Your task to perform on an android device: toggle priority inbox in the gmail app Image 0: 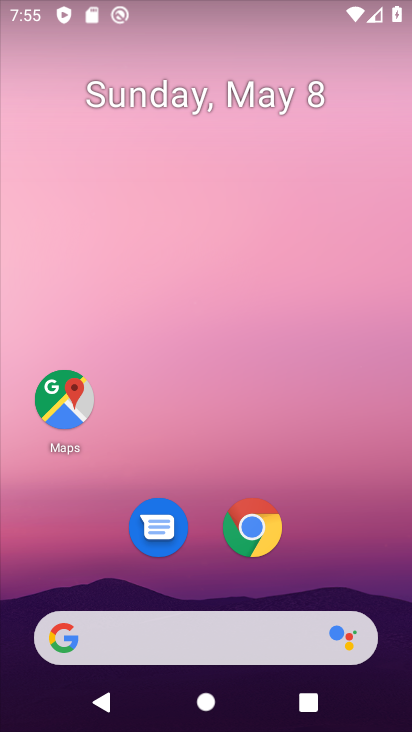
Step 0: drag from (379, 563) to (264, 2)
Your task to perform on an android device: toggle priority inbox in the gmail app Image 1: 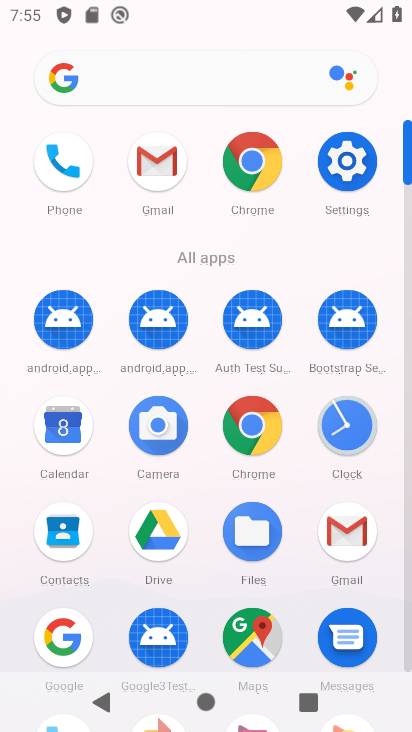
Step 1: drag from (10, 619) to (28, 195)
Your task to perform on an android device: toggle priority inbox in the gmail app Image 2: 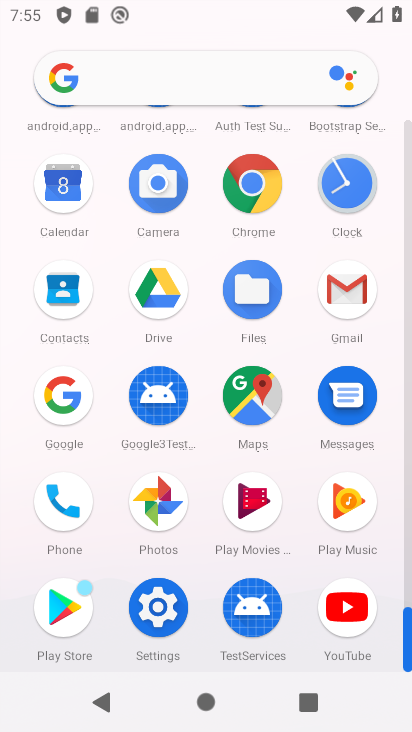
Step 2: click (347, 277)
Your task to perform on an android device: toggle priority inbox in the gmail app Image 3: 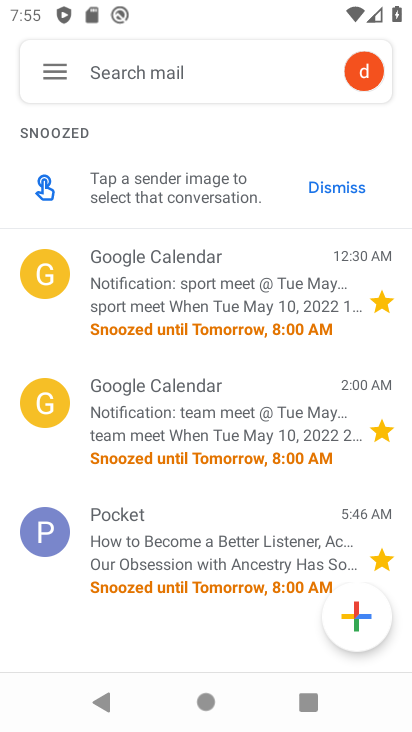
Step 3: click (54, 74)
Your task to perform on an android device: toggle priority inbox in the gmail app Image 4: 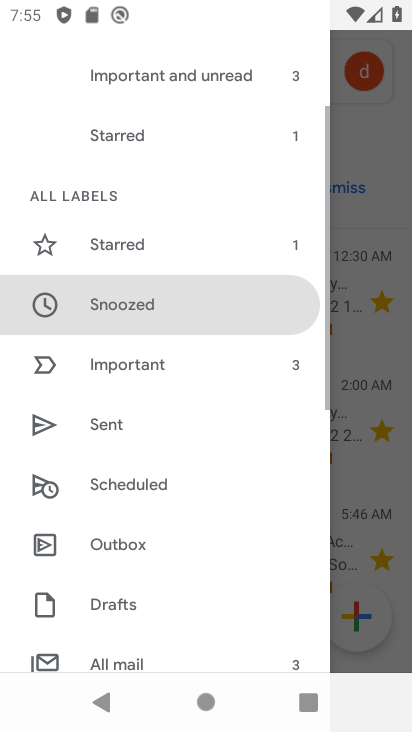
Step 4: drag from (123, 601) to (156, 165)
Your task to perform on an android device: toggle priority inbox in the gmail app Image 5: 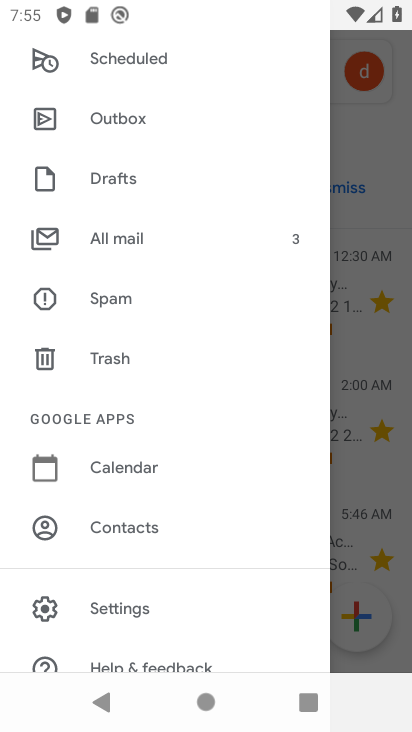
Step 5: click (139, 612)
Your task to perform on an android device: toggle priority inbox in the gmail app Image 6: 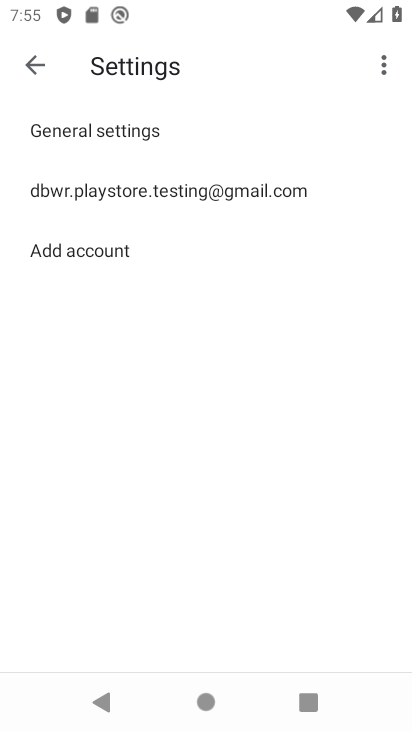
Step 6: click (139, 183)
Your task to perform on an android device: toggle priority inbox in the gmail app Image 7: 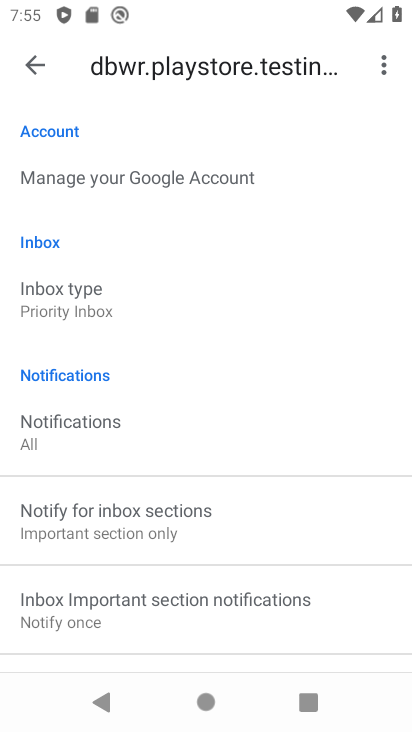
Step 7: drag from (275, 374) to (269, 124)
Your task to perform on an android device: toggle priority inbox in the gmail app Image 8: 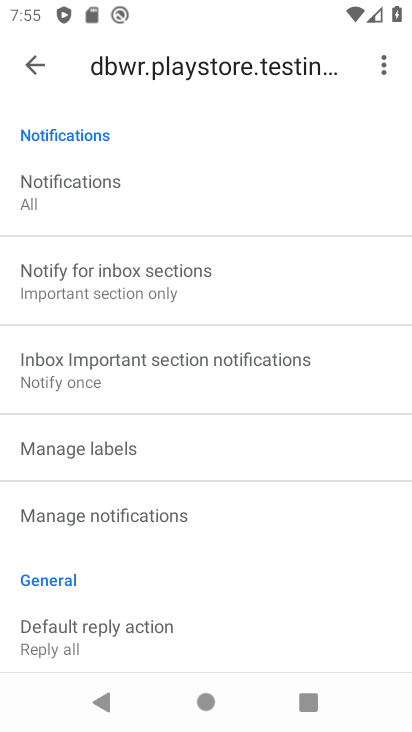
Step 8: drag from (269, 202) to (309, 502)
Your task to perform on an android device: toggle priority inbox in the gmail app Image 9: 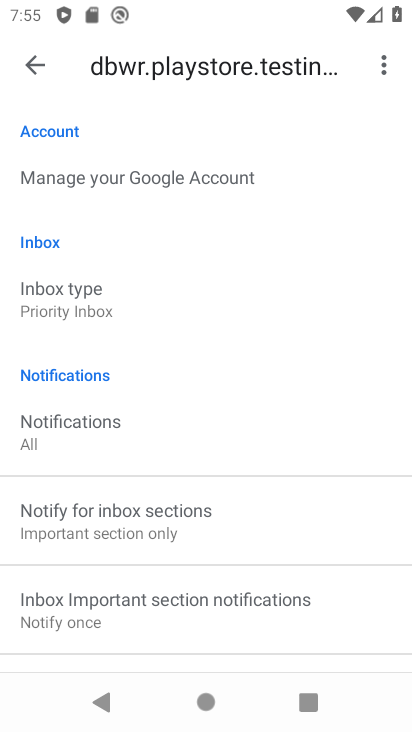
Step 9: click (127, 284)
Your task to perform on an android device: toggle priority inbox in the gmail app Image 10: 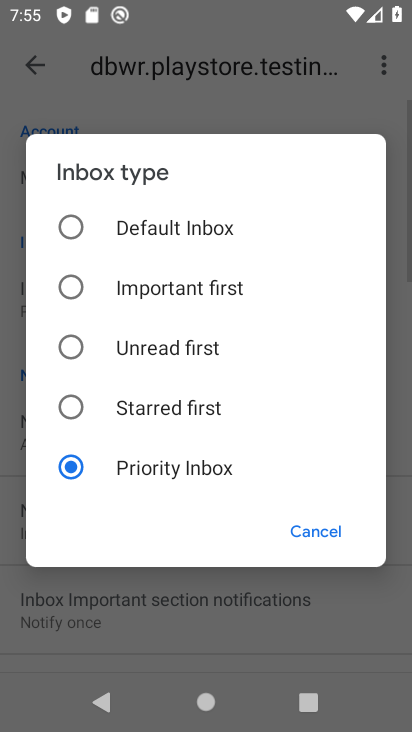
Step 10: click (145, 412)
Your task to perform on an android device: toggle priority inbox in the gmail app Image 11: 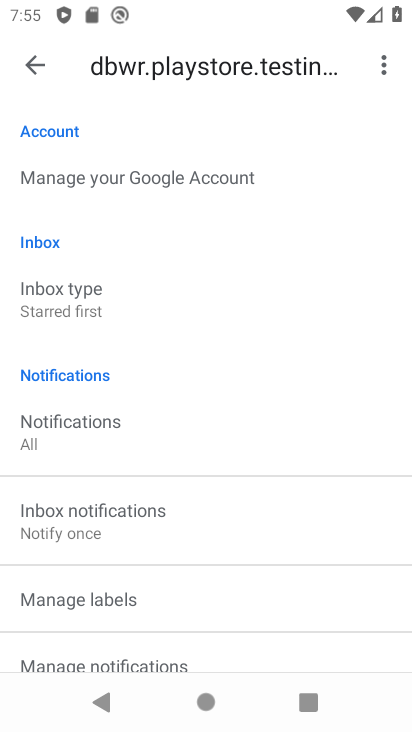
Step 11: task complete